Your task to perform on an android device: Go to Yahoo.com Image 0: 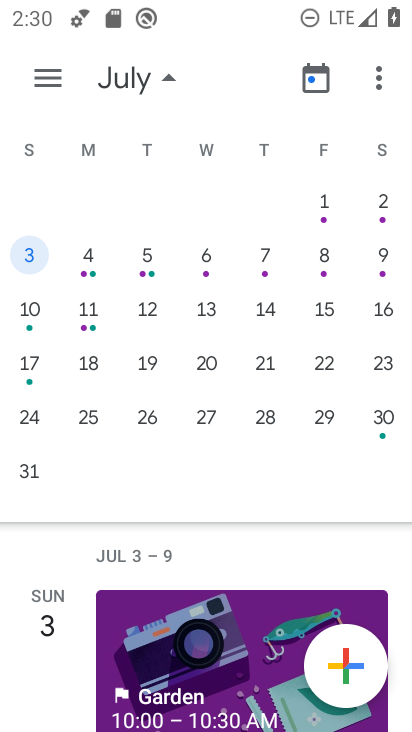
Step 0: press home button
Your task to perform on an android device: Go to Yahoo.com Image 1: 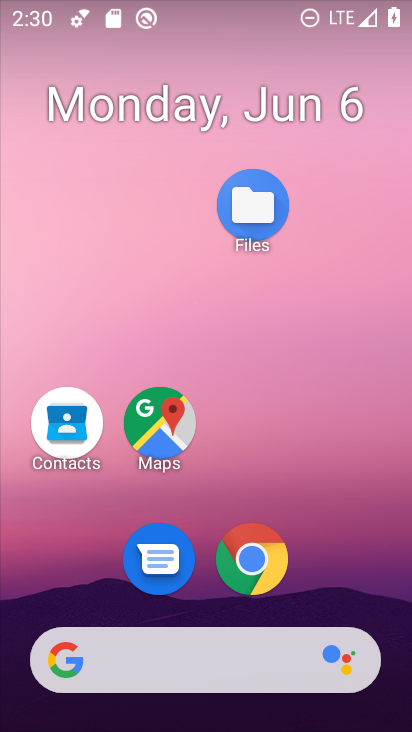
Step 1: click (261, 555)
Your task to perform on an android device: Go to Yahoo.com Image 2: 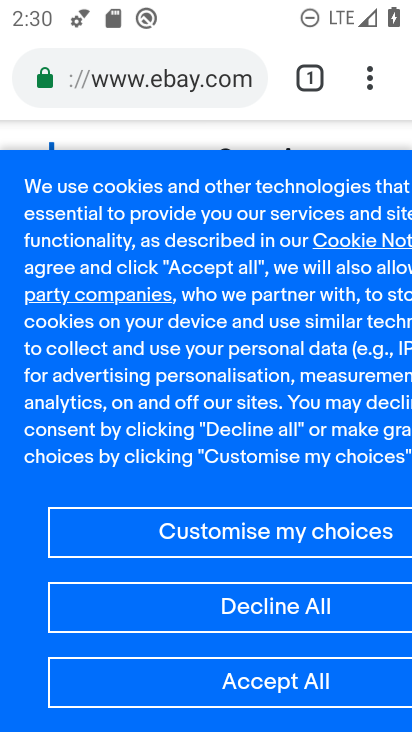
Step 2: click (190, 87)
Your task to perform on an android device: Go to Yahoo.com Image 3: 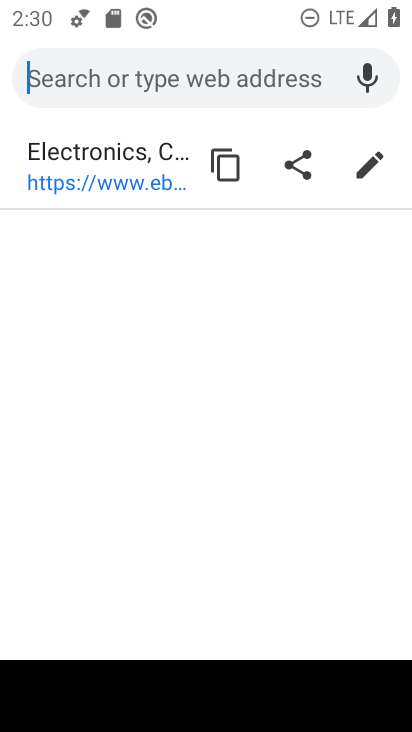
Step 3: type "yahoo"
Your task to perform on an android device: Go to Yahoo.com Image 4: 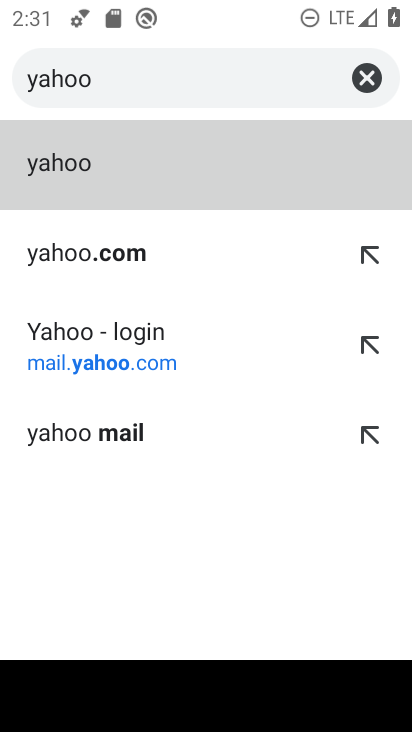
Step 4: click (179, 269)
Your task to perform on an android device: Go to Yahoo.com Image 5: 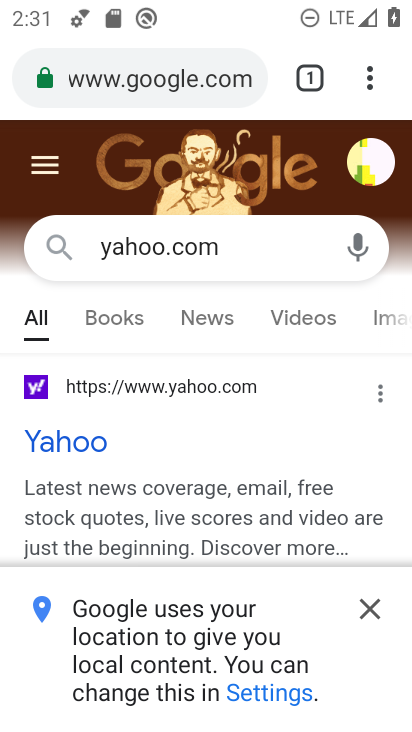
Step 5: click (84, 443)
Your task to perform on an android device: Go to Yahoo.com Image 6: 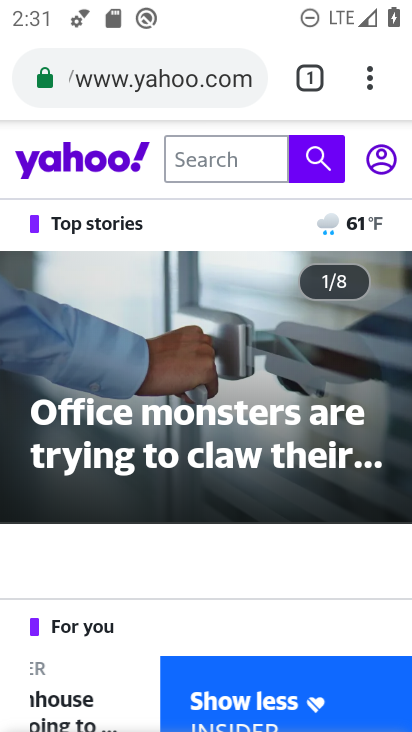
Step 6: task complete